Your task to perform on an android device: Go to Reddit.com Image 0: 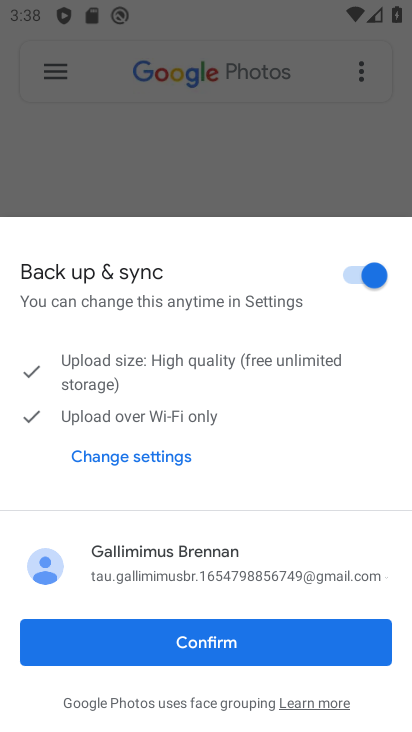
Step 0: press home button
Your task to perform on an android device: Go to Reddit.com Image 1: 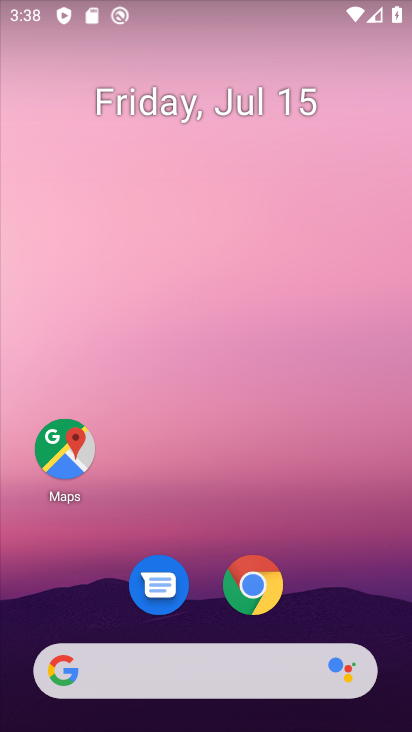
Step 1: click (231, 686)
Your task to perform on an android device: Go to Reddit.com Image 2: 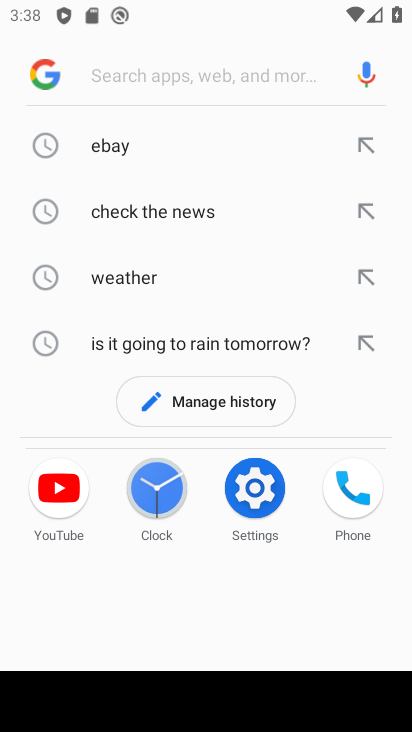
Step 2: type "reddit.com"
Your task to perform on an android device: Go to Reddit.com Image 3: 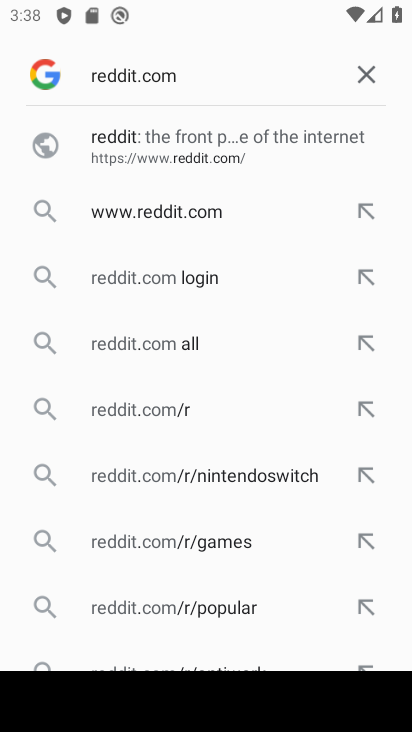
Step 3: click (125, 146)
Your task to perform on an android device: Go to Reddit.com Image 4: 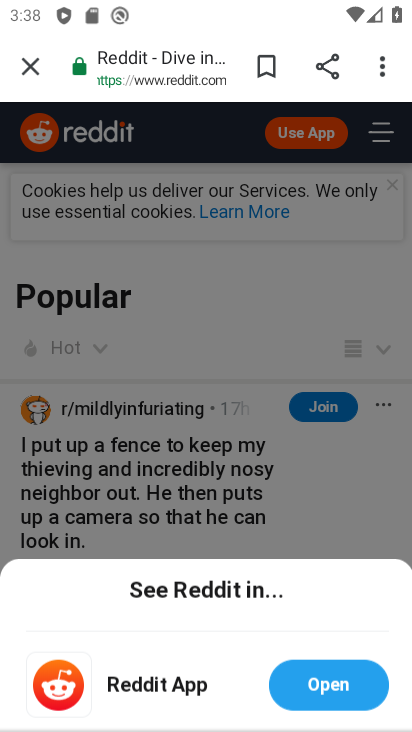
Step 4: task complete